Your task to perform on an android device: open app "Facebook Messenger" (install if not already installed) Image 0: 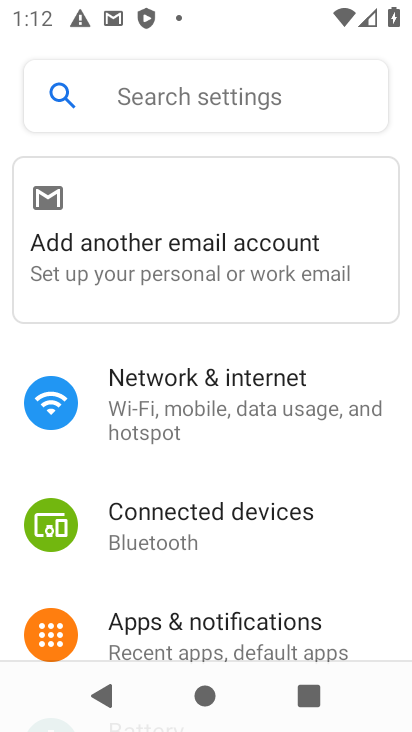
Step 0: press home button
Your task to perform on an android device: open app "Facebook Messenger" (install if not already installed) Image 1: 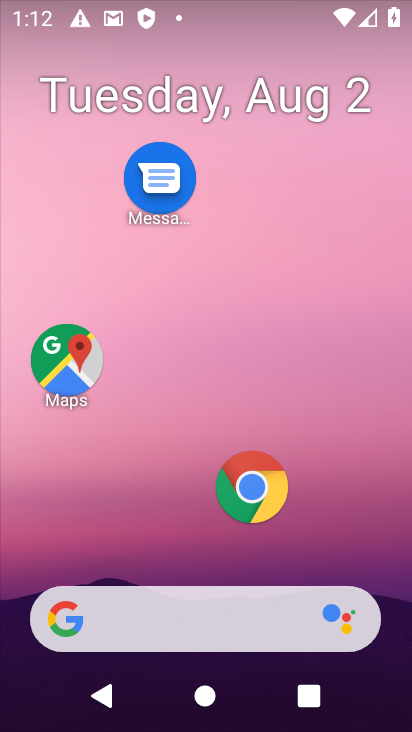
Step 1: drag from (181, 538) to (216, 259)
Your task to perform on an android device: open app "Facebook Messenger" (install if not already installed) Image 2: 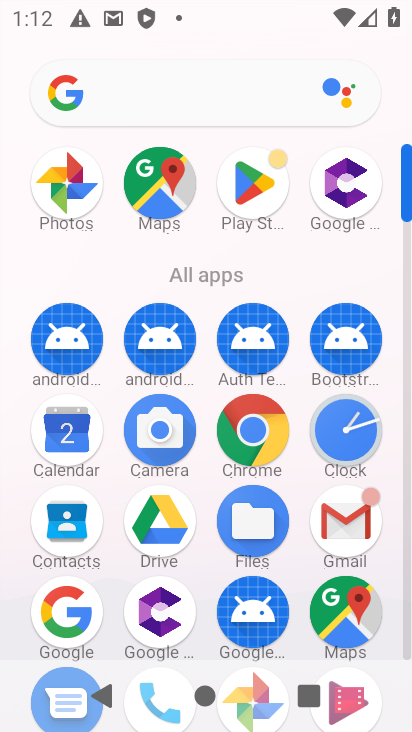
Step 2: click (245, 196)
Your task to perform on an android device: open app "Facebook Messenger" (install if not already installed) Image 3: 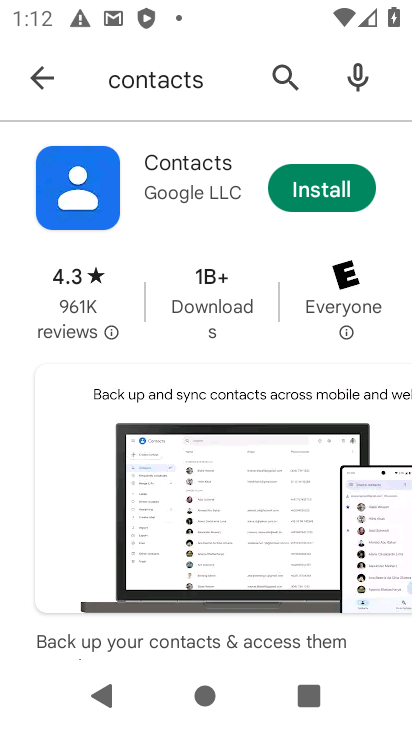
Step 3: click (300, 83)
Your task to perform on an android device: open app "Facebook Messenger" (install if not already installed) Image 4: 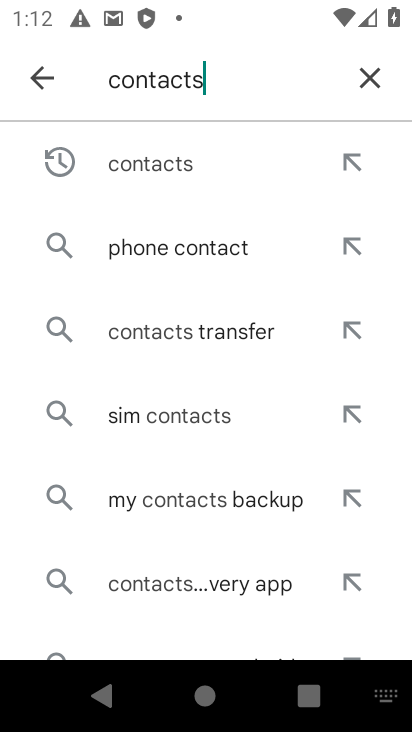
Step 4: click (369, 85)
Your task to perform on an android device: open app "Facebook Messenger" (install if not already installed) Image 5: 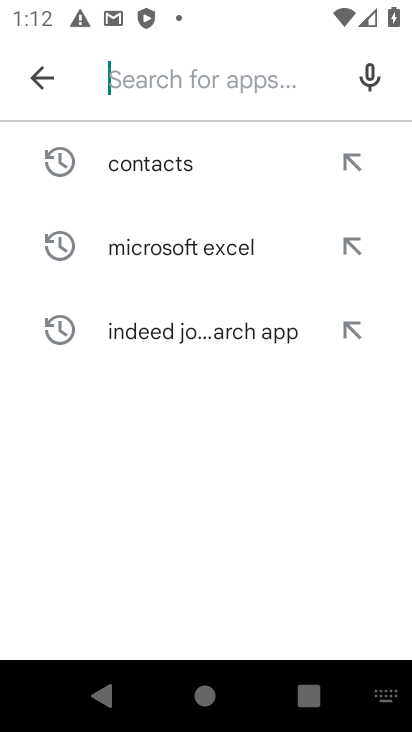
Step 5: type "Facebook Messenger"
Your task to perform on an android device: open app "Facebook Messenger" (install if not already installed) Image 6: 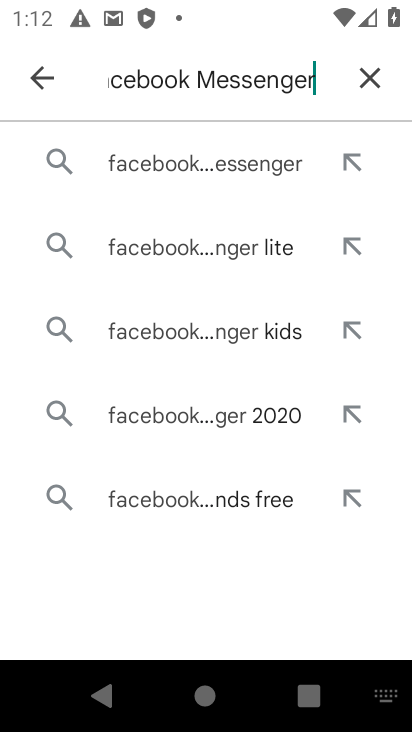
Step 6: click (209, 170)
Your task to perform on an android device: open app "Facebook Messenger" (install if not already installed) Image 7: 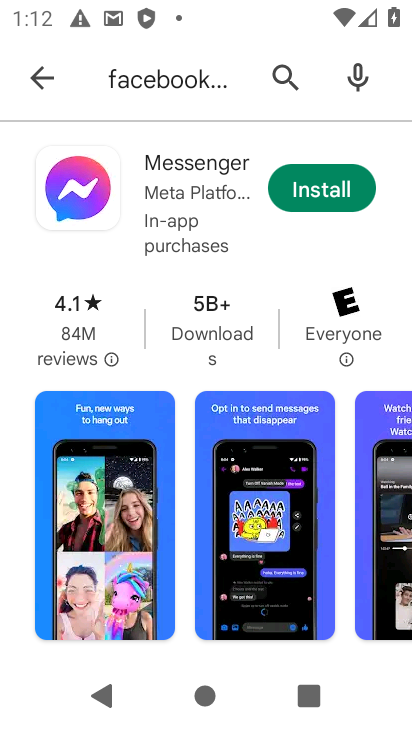
Step 7: click (311, 182)
Your task to perform on an android device: open app "Facebook Messenger" (install if not already installed) Image 8: 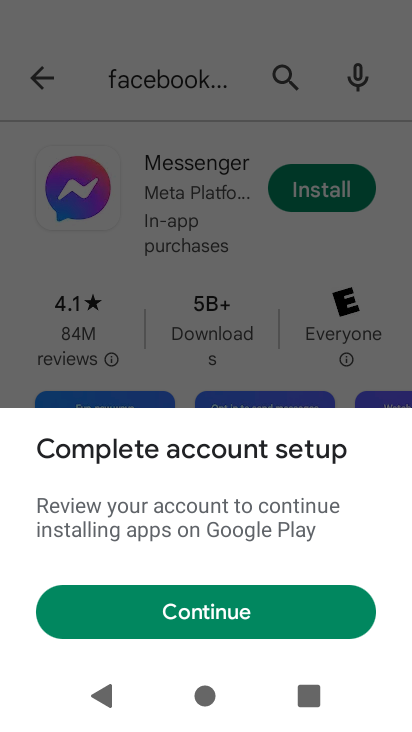
Step 8: click (301, 591)
Your task to perform on an android device: open app "Facebook Messenger" (install if not already installed) Image 9: 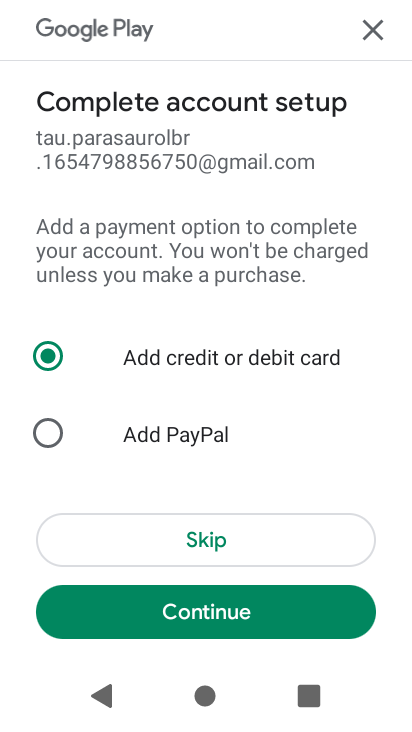
Step 9: click (187, 540)
Your task to perform on an android device: open app "Facebook Messenger" (install if not already installed) Image 10: 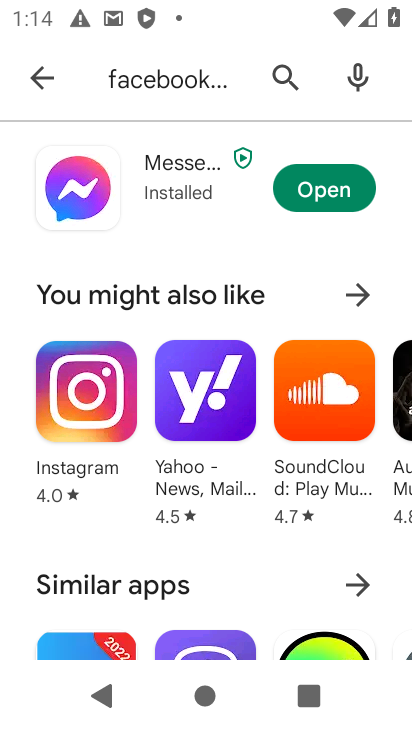
Step 10: click (336, 193)
Your task to perform on an android device: open app "Facebook Messenger" (install if not already installed) Image 11: 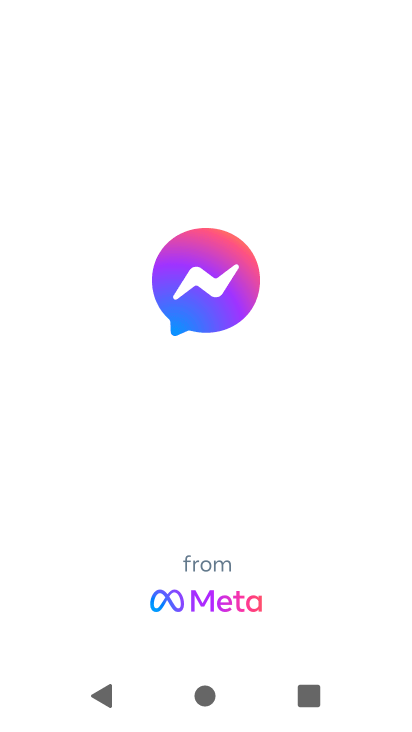
Step 11: task complete